Your task to perform on an android device: Turn off the flashlight Image 0: 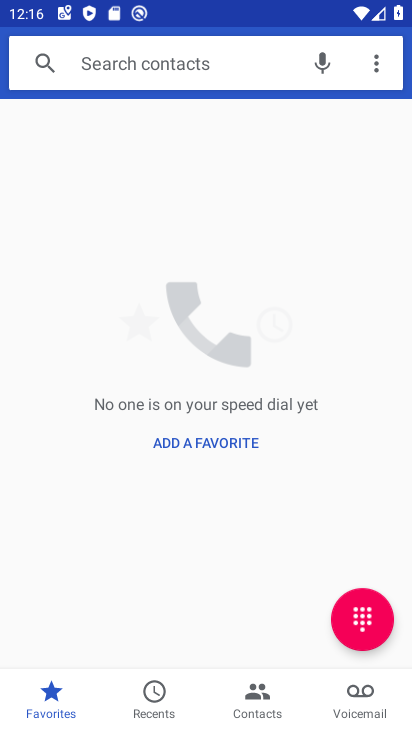
Step 0: press home button
Your task to perform on an android device: Turn off the flashlight Image 1: 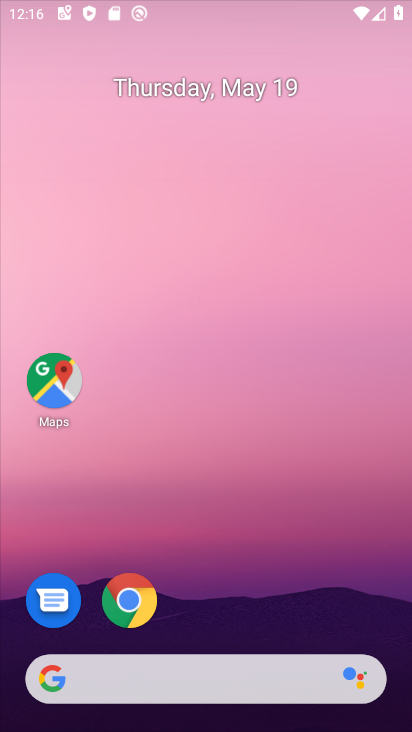
Step 1: task complete